Your task to perform on an android device: Search for good Korean restaurants Image 0: 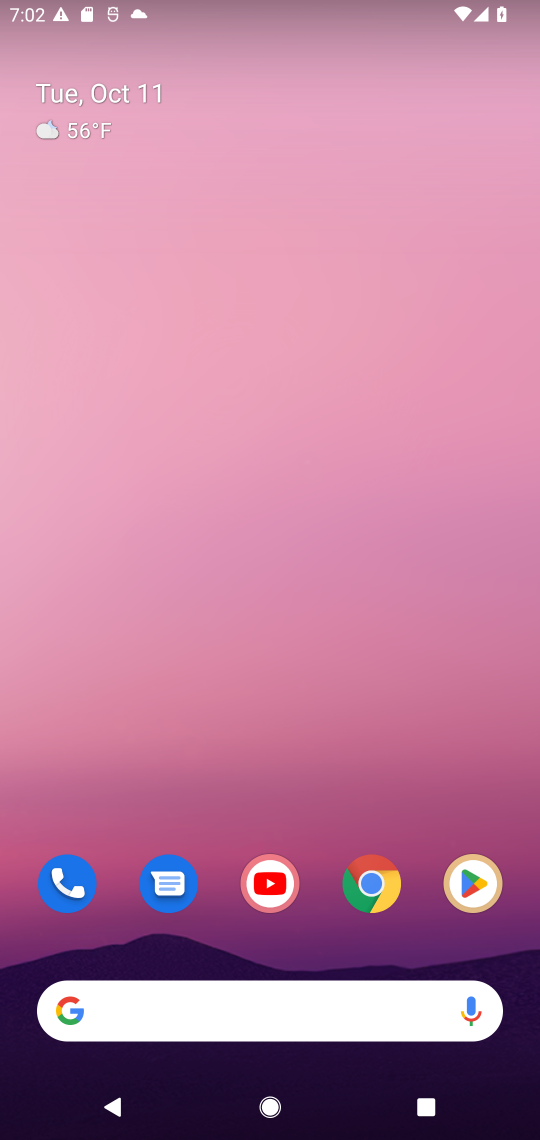
Step 0: drag from (363, 318) to (367, 57)
Your task to perform on an android device: Search for good Korean restaurants Image 1: 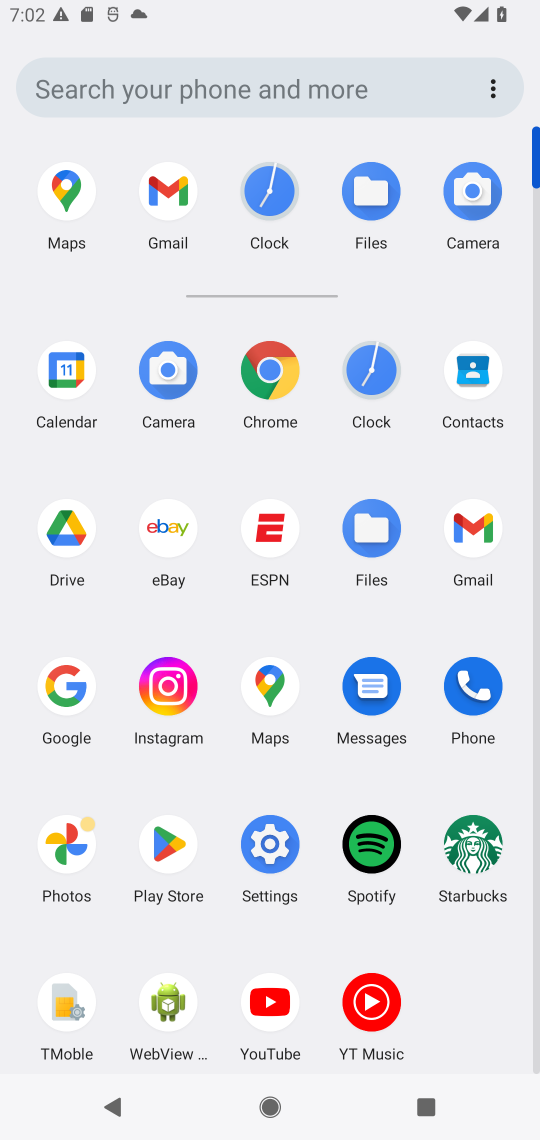
Step 1: click (280, 363)
Your task to perform on an android device: Search for good Korean restaurants Image 2: 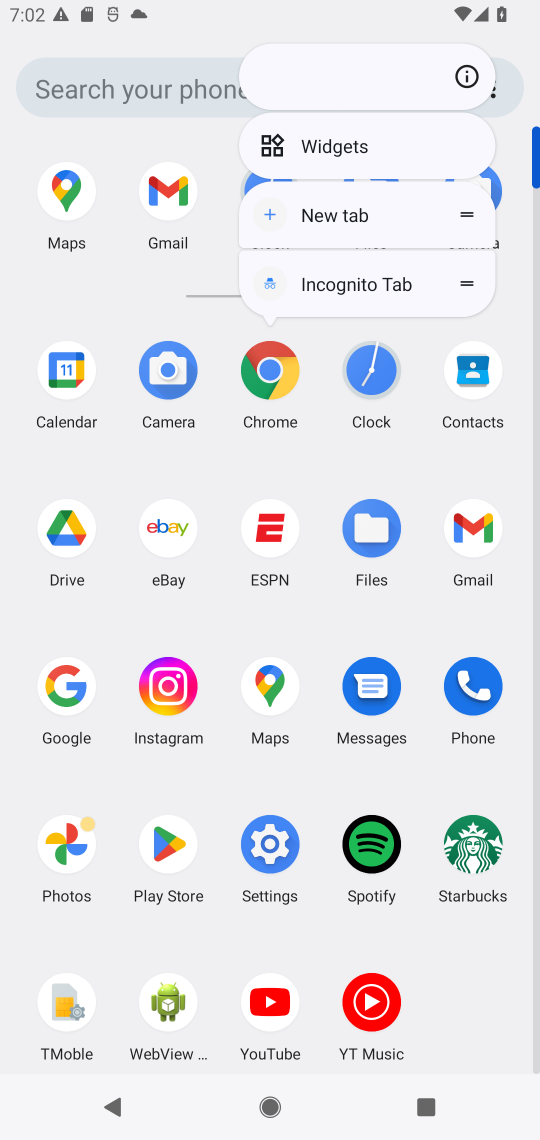
Step 2: click (276, 357)
Your task to perform on an android device: Search for good Korean restaurants Image 3: 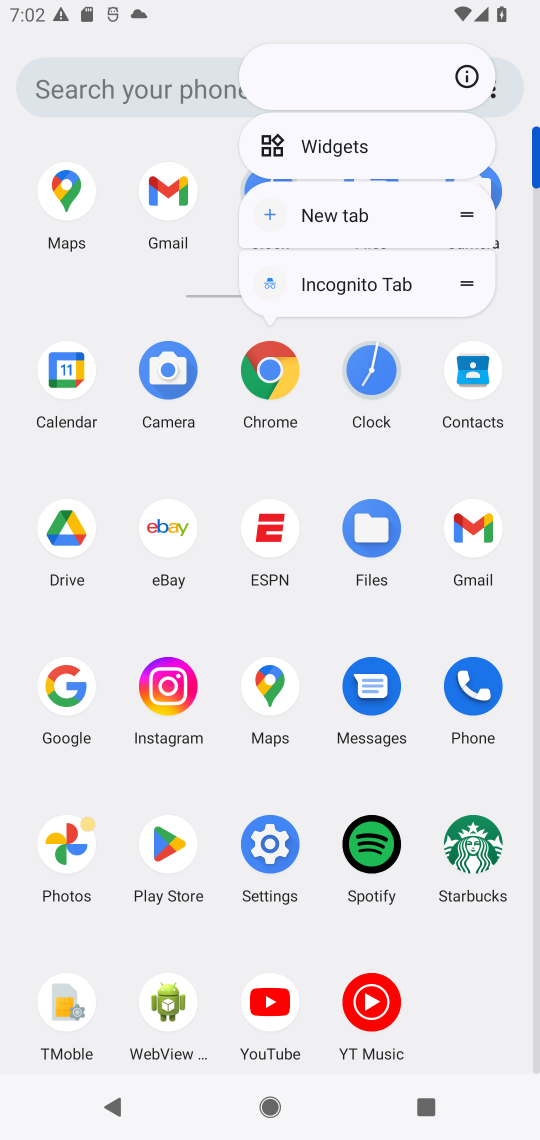
Step 3: click (273, 368)
Your task to perform on an android device: Search for good Korean restaurants Image 4: 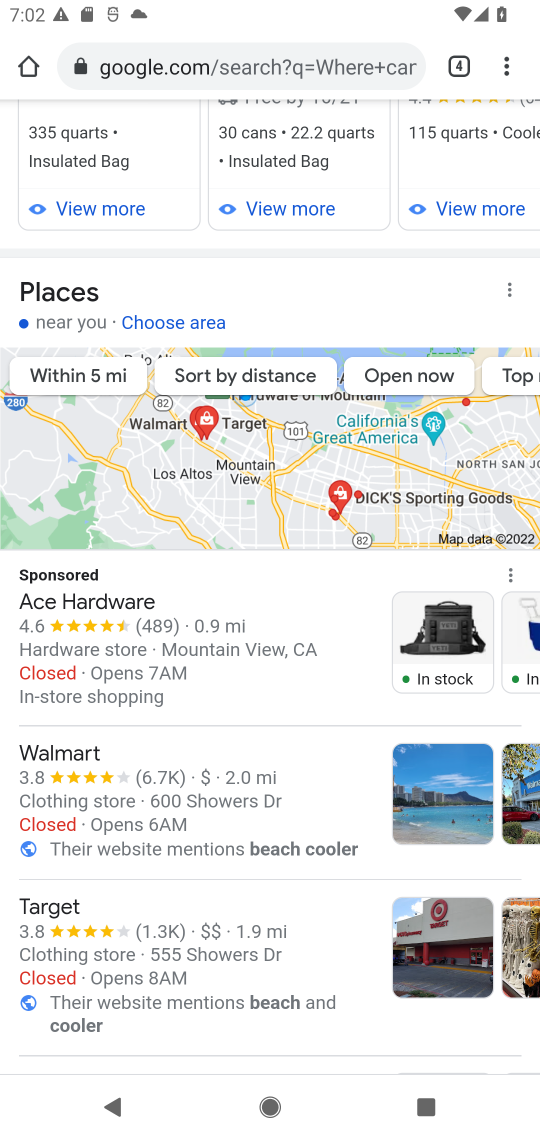
Step 4: click (233, 70)
Your task to perform on an android device: Search for good Korean restaurants Image 5: 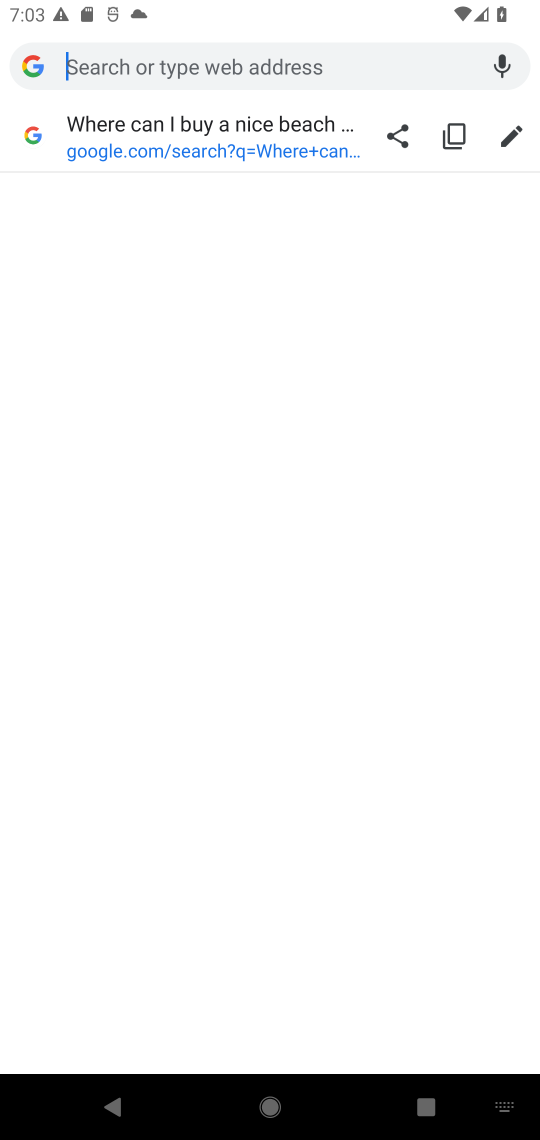
Step 5: type "good Korean restaurants"
Your task to perform on an android device: Search for good Korean restaurants Image 6: 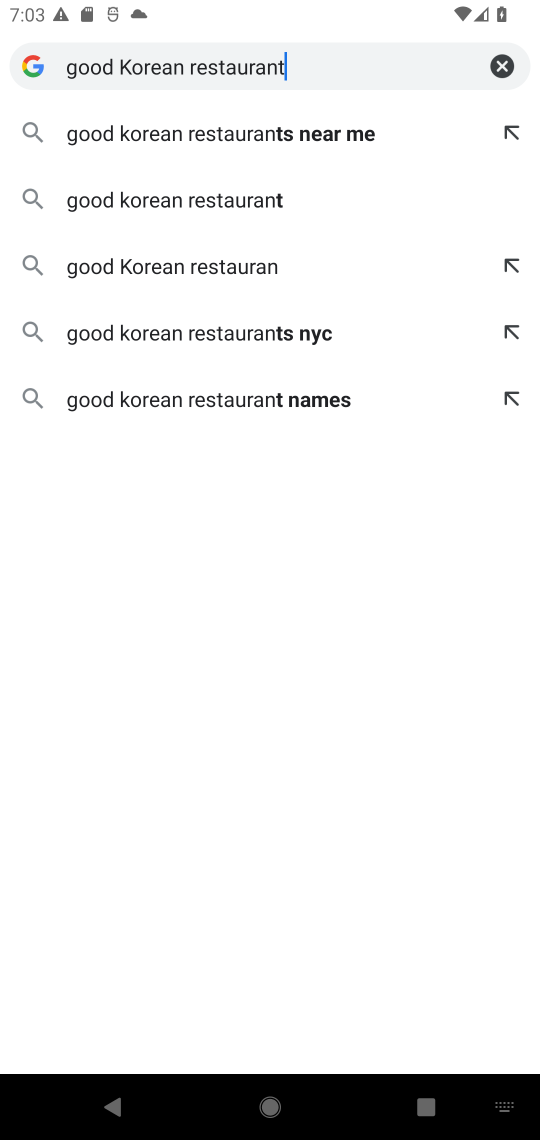
Step 6: press enter
Your task to perform on an android device: Search for good Korean restaurants Image 7: 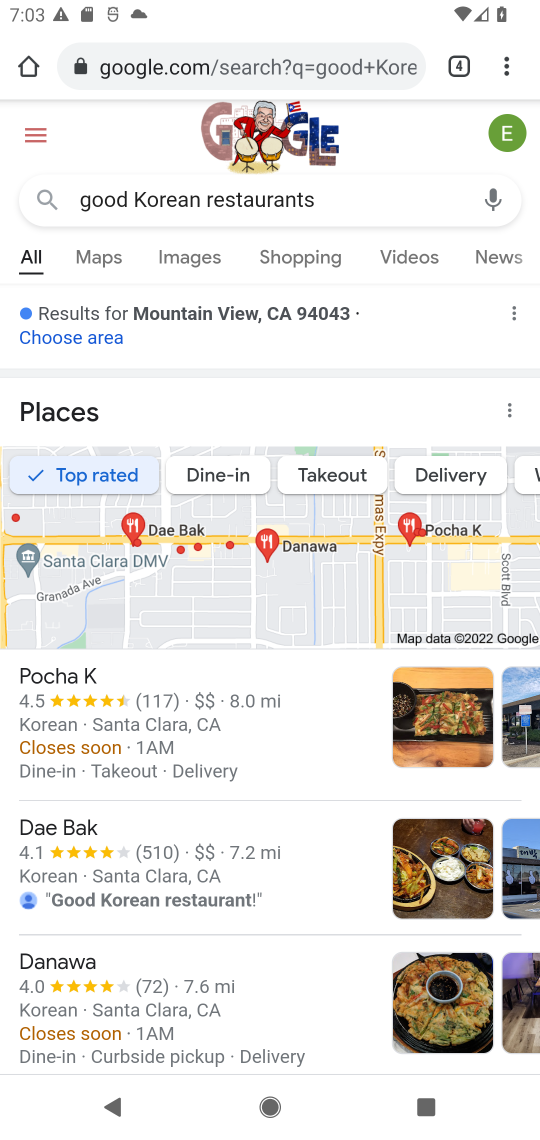
Step 7: task complete